Your task to perform on an android device: Open Google Chrome and open the bookmarks view Image 0: 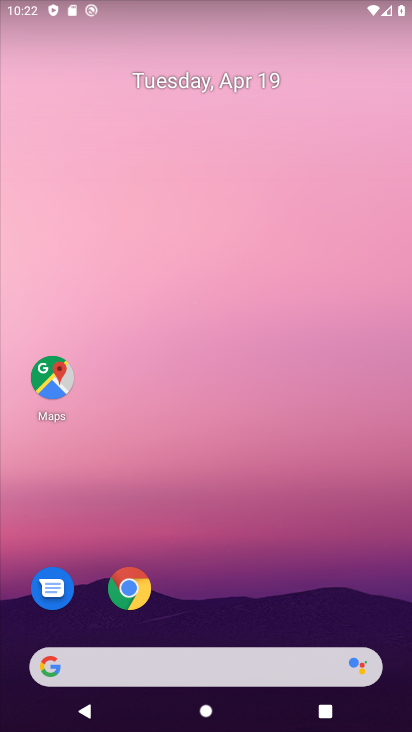
Step 0: click (128, 591)
Your task to perform on an android device: Open Google Chrome and open the bookmarks view Image 1: 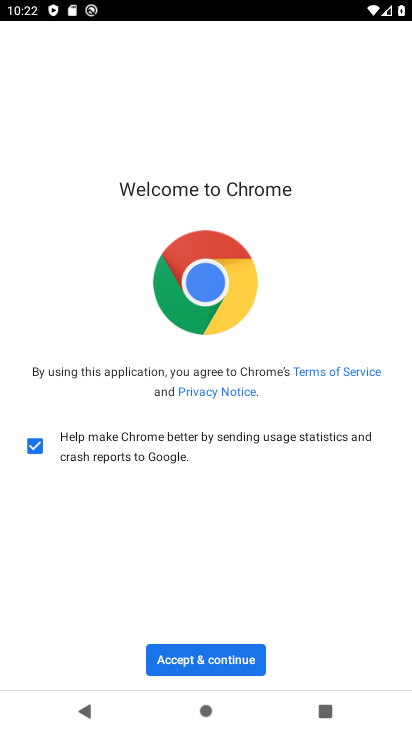
Step 1: click (185, 668)
Your task to perform on an android device: Open Google Chrome and open the bookmarks view Image 2: 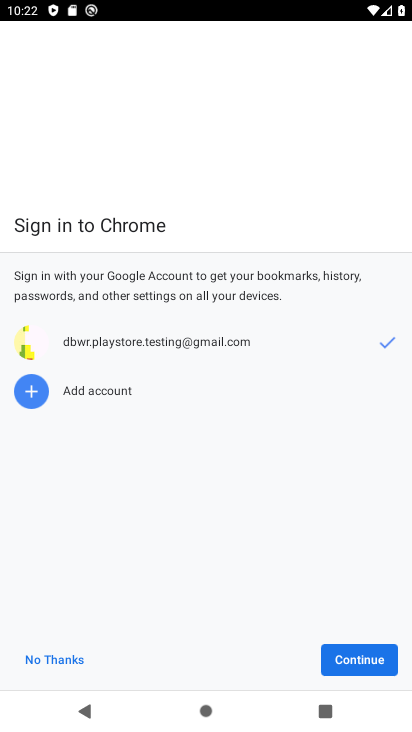
Step 2: click (370, 664)
Your task to perform on an android device: Open Google Chrome and open the bookmarks view Image 3: 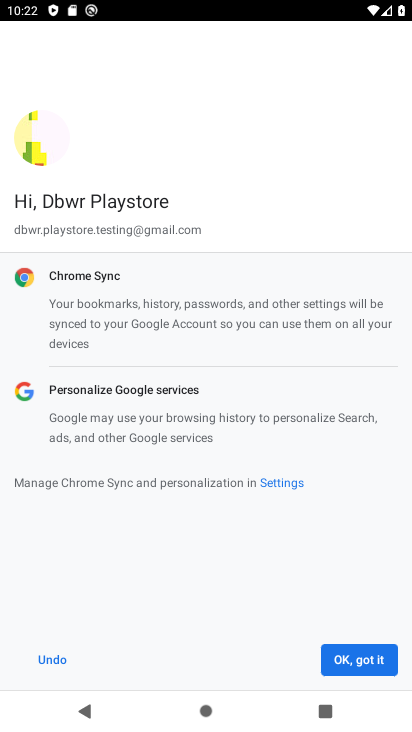
Step 3: click (370, 664)
Your task to perform on an android device: Open Google Chrome and open the bookmarks view Image 4: 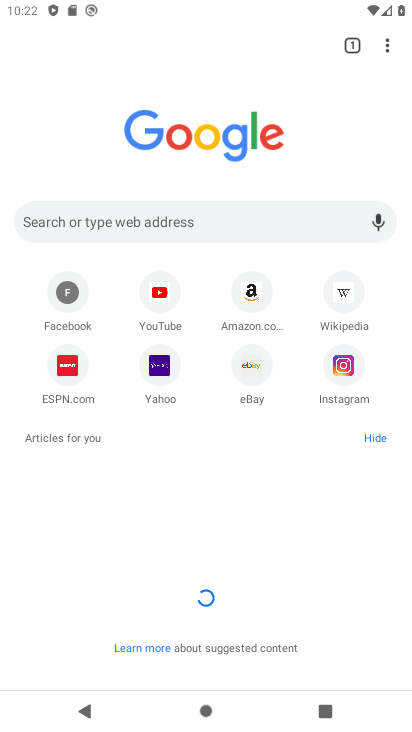
Step 4: click (405, 50)
Your task to perform on an android device: Open Google Chrome and open the bookmarks view Image 5: 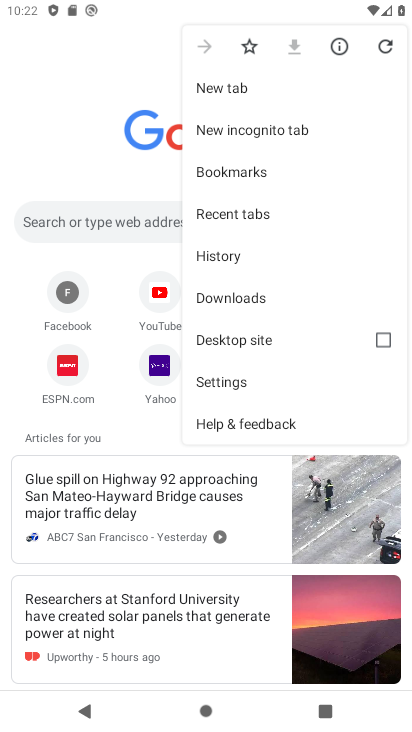
Step 5: click (244, 185)
Your task to perform on an android device: Open Google Chrome and open the bookmarks view Image 6: 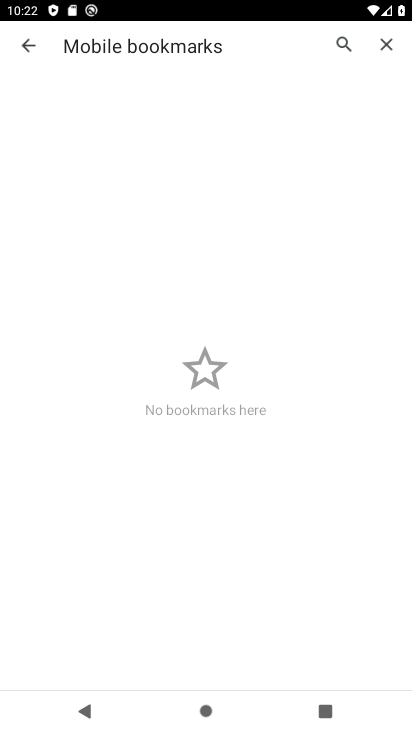
Step 6: task complete